Your task to perform on an android device: empty trash in google photos Image 0: 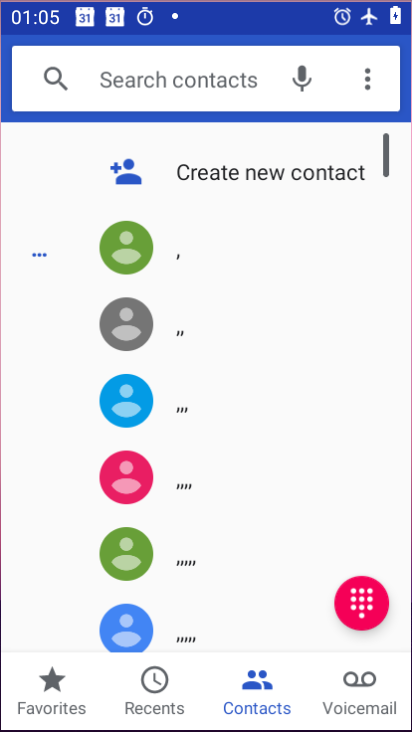
Step 0: press home button
Your task to perform on an android device: empty trash in google photos Image 1: 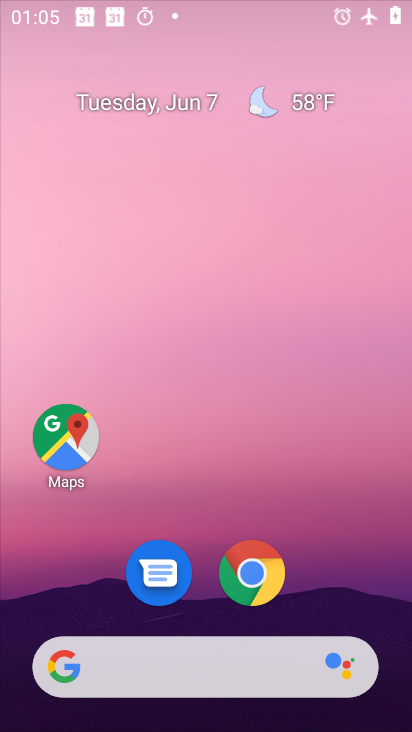
Step 1: drag from (337, 620) to (334, 3)
Your task to perform on an android device: empty trash in google photos Image 2: 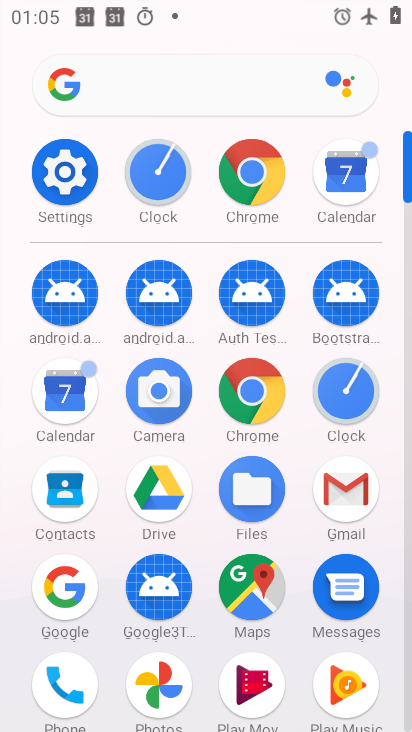
Step 2: click (43, 176)
Your task to perform on an android device: empty trash in google photos Image 3: 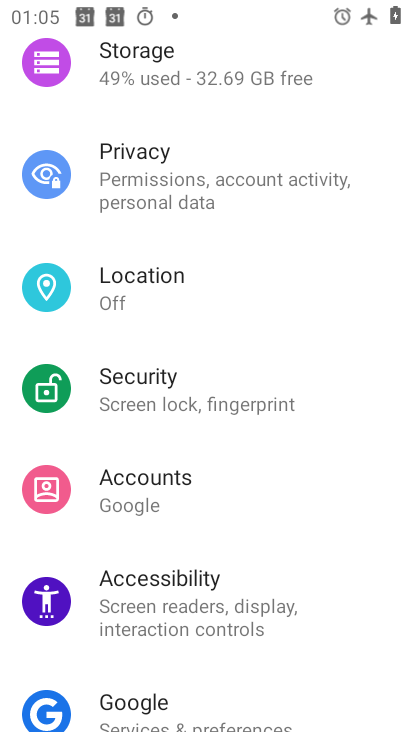
Step 3: press home button
Your task to perform on an android device: empty trash in google photos Image 4: 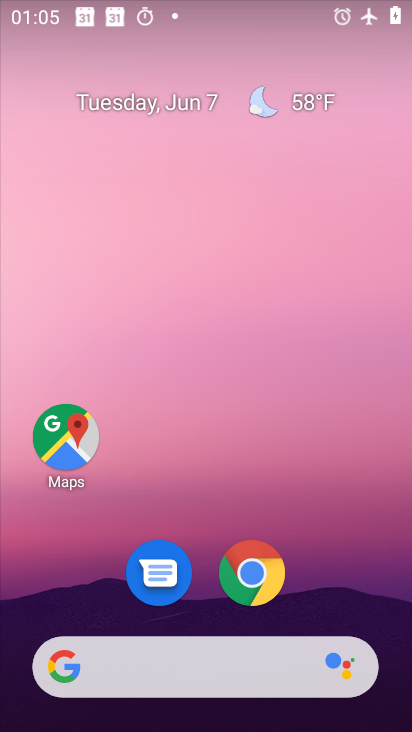
Step 4: drag from (374, 541) to (261, 239)
Your task to perform on an android device: empty trash in google photos Image 5: 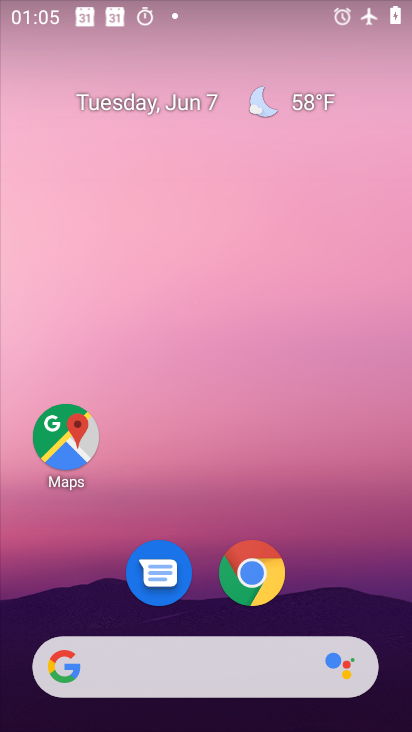
Step 5: drag from (411, 527) to (277, 156)
Your task to perform on an android device: empty trash in google photos Image 6: 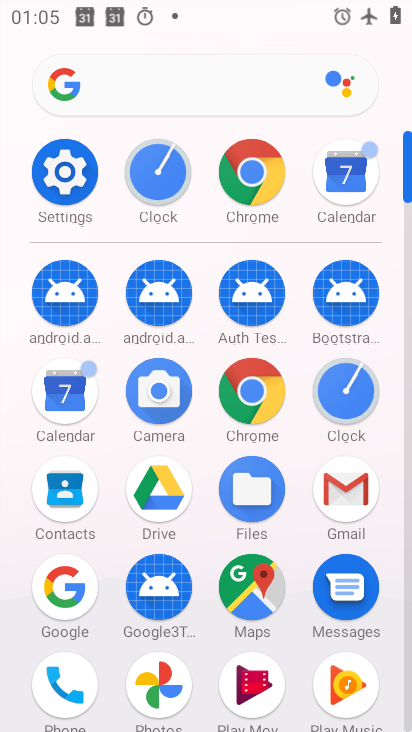
Step 6: click (179, 665)
Your task to perform on an android device: empty trash in google photos Image 7: 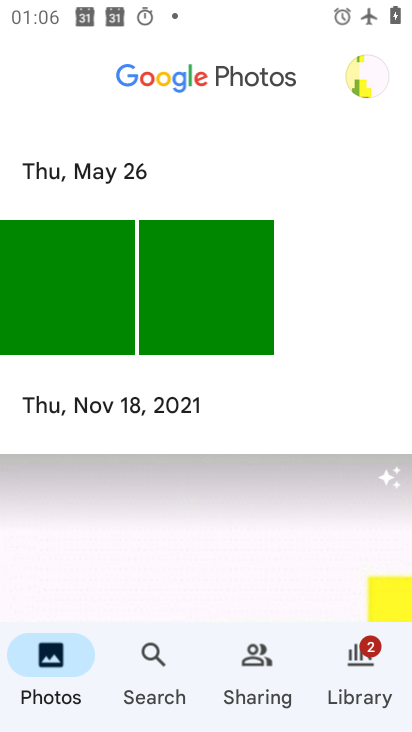
Step 7: click (377, 656)
Your task to perform on an android device: empty trash in google photos Image 8: 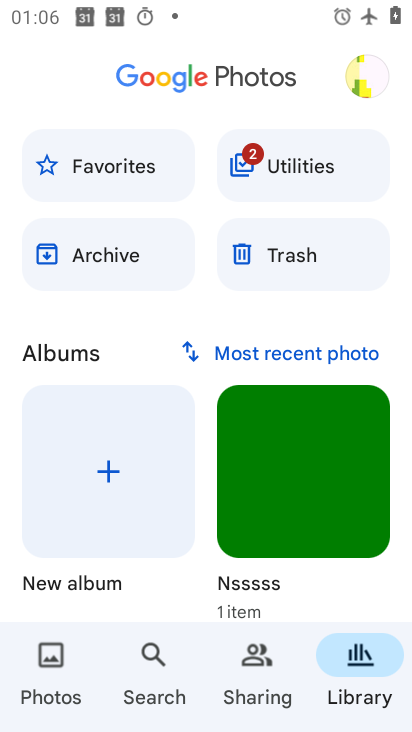
Step 8: click (296, 252)
Your task to perform on an android device: empty trash in google photos Image 9: 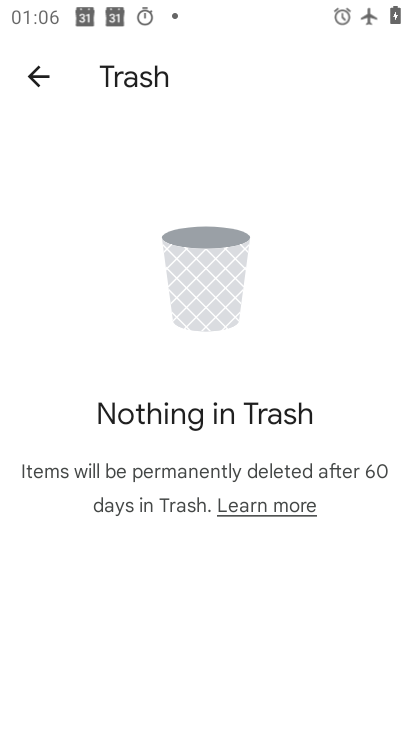
Step 9: task complete